Your task to perform on an android device: read, delete, or share a saved page in the chrome app Image 0: 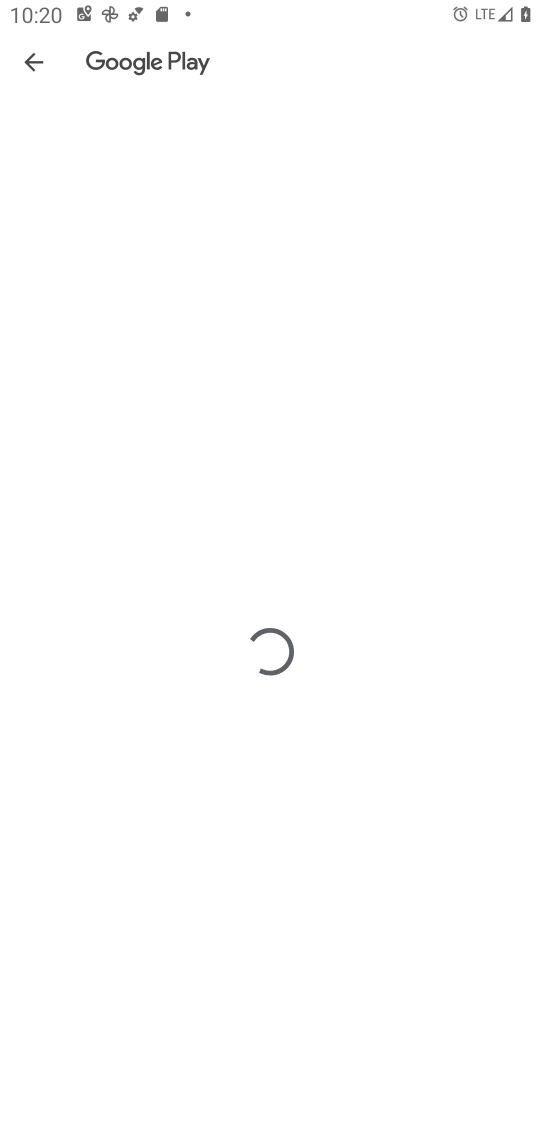
Step 0: press home button
Your task to perform on an android device: read, delete, or share a saved page in the chrome app Image 1: 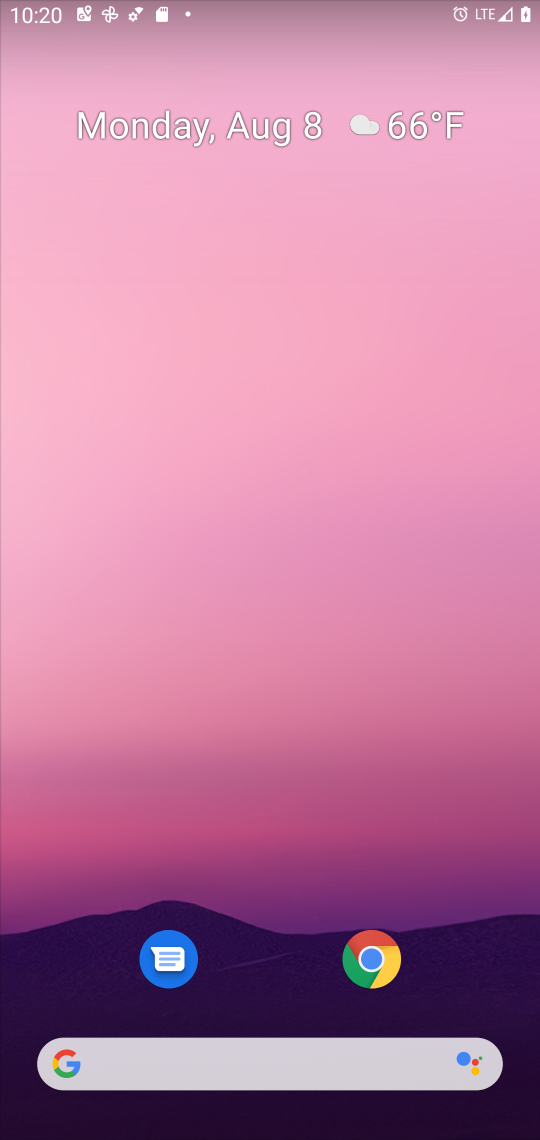
Step 1: drag from (489, 975) to (280, 42)
Your task to perform on an android device: read, delete, or share a saved page in the chrome app Image 2: 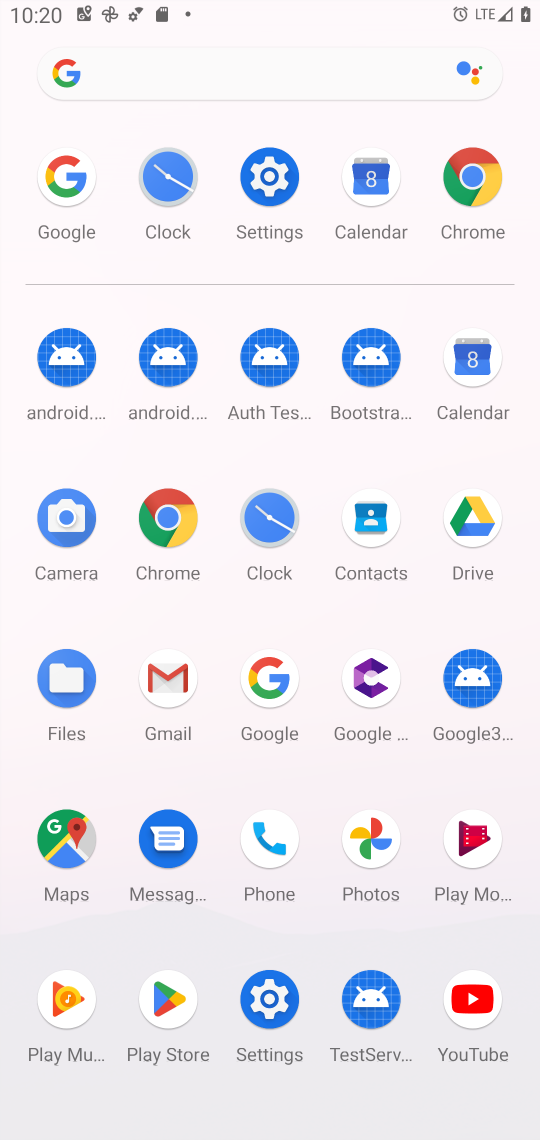
Step 2: click (465, 180)
Your task to perform on an android device: read, delete, or share a saved page in the chrome app Image 3: 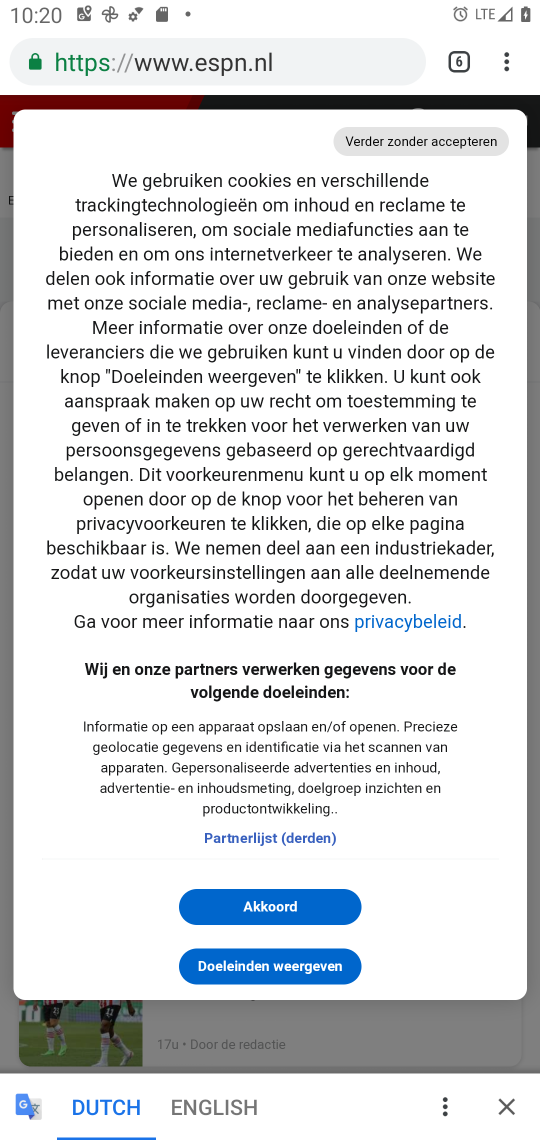
Step 3: press back button
Your task to perform on an android device: read, delete, or share a saved page in the chrome app Image 4: 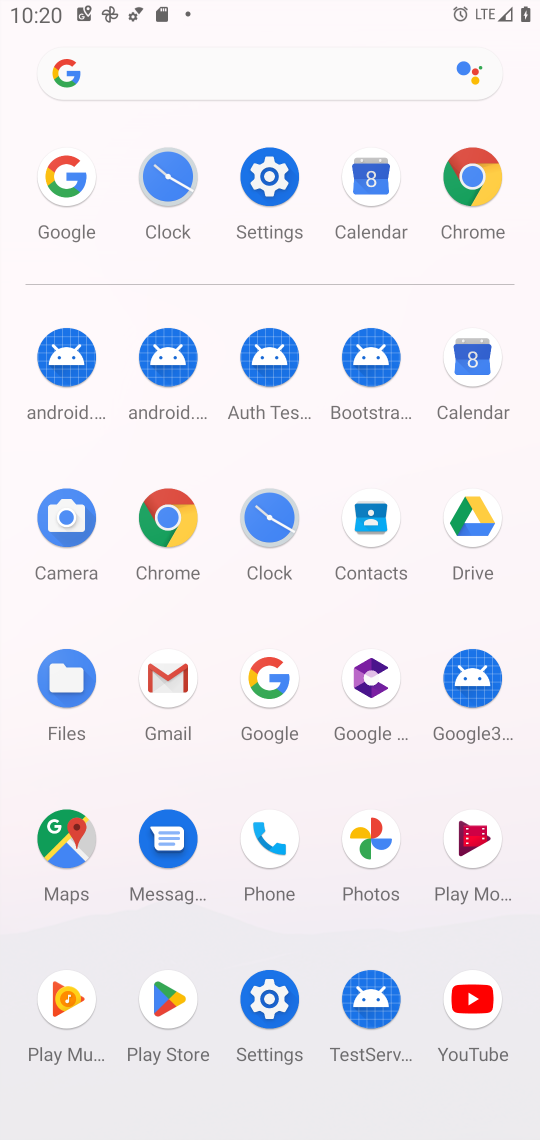
Step 4: click (479, 159)
Your task to perform on an android device: read, delete, or share a saved page in the chrome app Image 5: 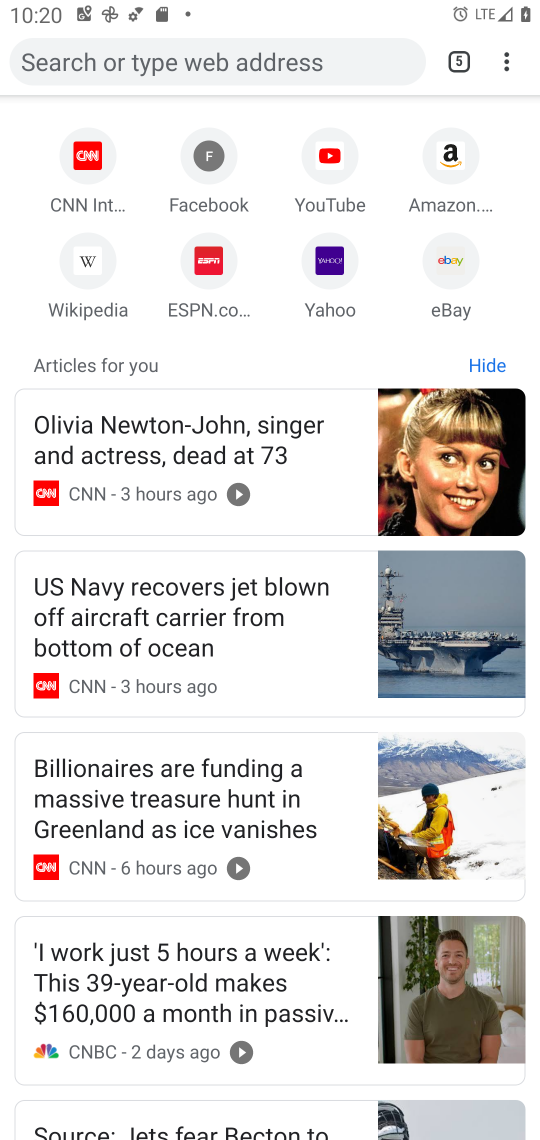
Step 5: task complete